Your task to perform on an android device: Clear the shopping cart on ebay. Add macbook air to the cart on ebay Image 0: 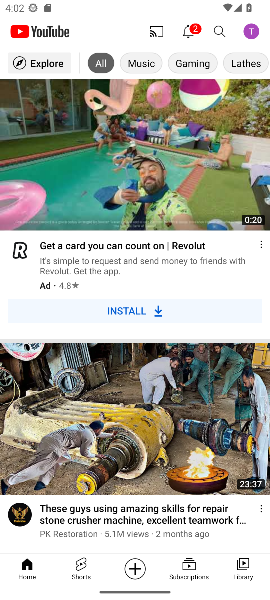
Step 0: press home button
Your task to perform on an android device: Clear the shopping cart on ebay. Add macbook air to the cart on ebay Image 1: 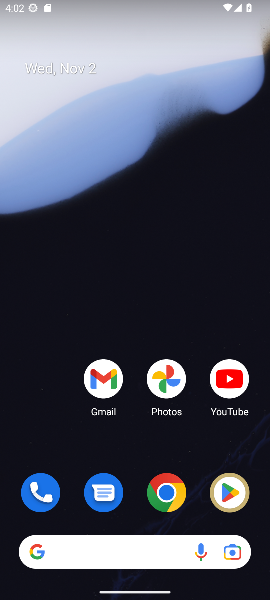
Step 1: click (167, 495)
Your task to perform on an android device: Clear the shopping cart on ebay. Add macbook air to the cart on ebay Image 2: 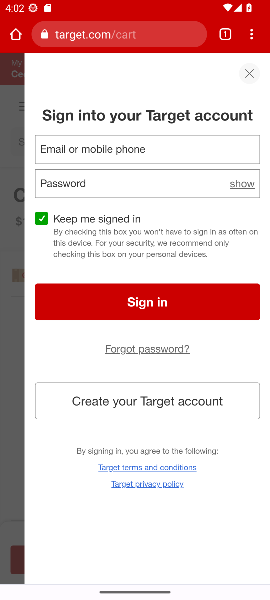
Step 2: click (155, 22)
Your task to perform on an android device: Clear the shopping cart on ebay. Add macbook air to the cart on ebay Image 3: 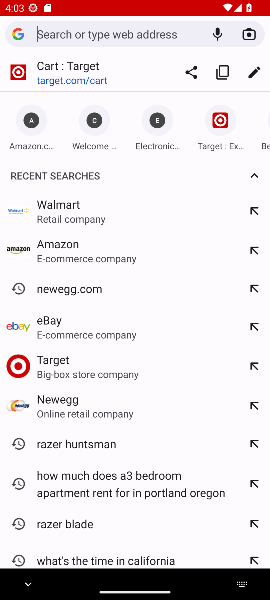
Step 3: type "ebay"
Your task to perform on an android device: Clear the shopping cart on ebay. Add macbook air to the cart on ebay Image 4: 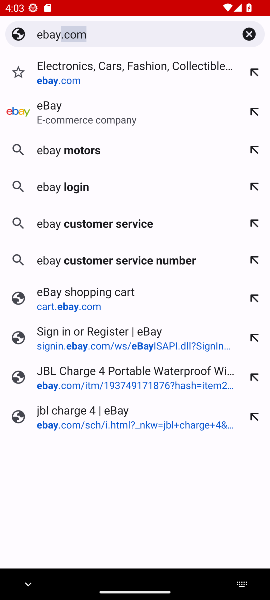
Step 4: click (59, 105)
Your task to perform on an android device: Clear the shopping cart on ebay. Add macbook air to the cart on ebay Image 5: 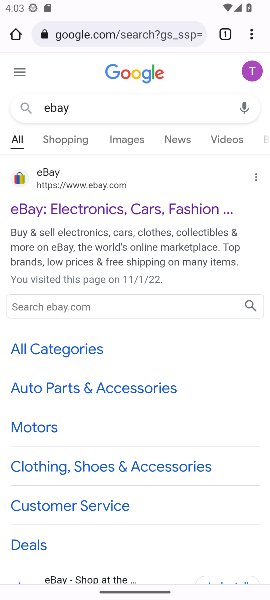
Step 5: click (70, 205)
Your task to perform on an android device: Clear the shopping cart on ebay. Add macbook air to the cart on ebay Image 6: 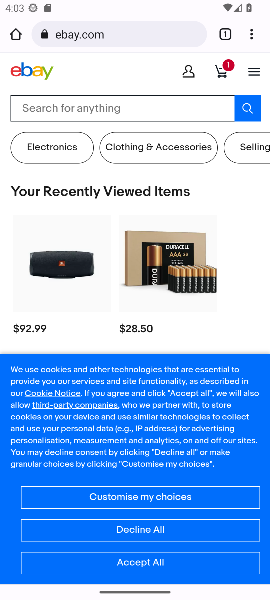
Step 6: click (225, 68)
Your task to perform on an android device: Clear the shopping cart on ebay. Add macbook air to the cart on ebay Image 7: 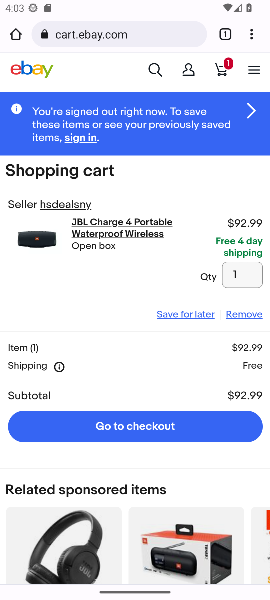
Step 7: click (242, 313)
Your task to perform on an android device: Clear the shopping cart on ebay. Add macbook air to the cart on ebay Image 8: 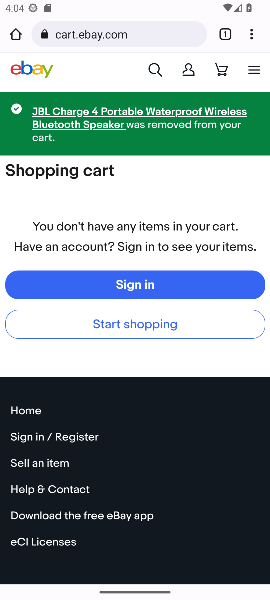
Step 8: click (129, 320)
Your task to perform on an android device: Clear the shopping cart on ebay. Add macbook air to the cart on ebay Image 9: 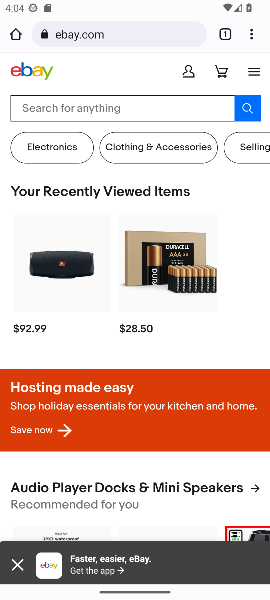
Step 9: click (64, 107)
Your task to perform on an android device: Clear the shopping cart on ebay. Add macbook air to the cart on ebay Image 10: 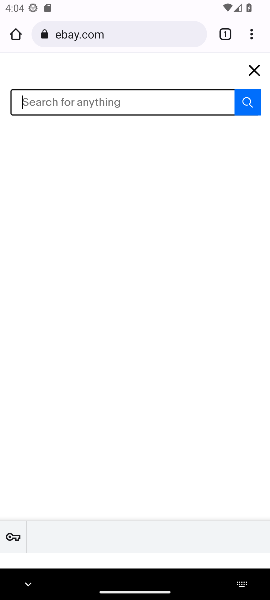
Step 10: type "macbook air"
Your task to perform on an android device: Clear the shopping cart on ebay. Add macbook air to the cart on ebay Image 11: 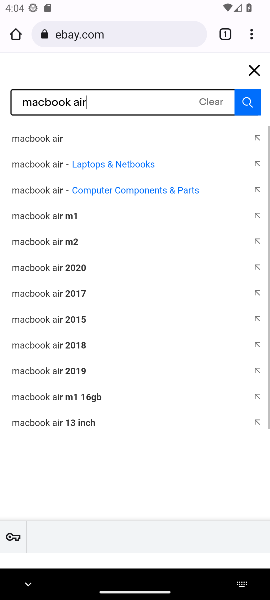
Step 11: click (42, 134)
Your task to perform on an android device: Clear the shopping cart on ebay. Add macbook air to the cart on ebay Image 12: 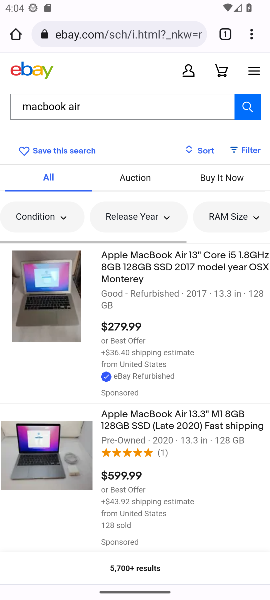
Step 12: click (122, 269)
Your task to perform on an android device: Clear the shopping cart on ebay. Add macbook air to the cart on ebay Image 13: 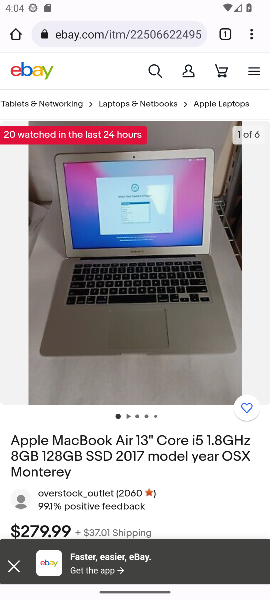
Step 13: drag from (222, 476) to (180, 208)
Your task to perform on an android device: Clear the shopping cart on ebay. Add macbook air to the cart on ebay Image 14: 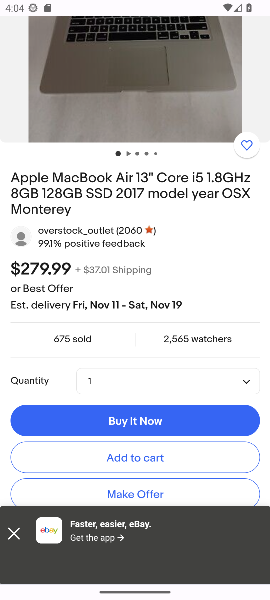
Step 14: click (134, 455)
Your task to perform on an android device: Clear the shopping cart on ebay. Add macbook air to the cart on ebay Image 15: 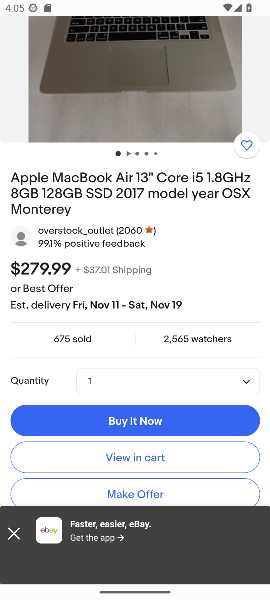
Step 15: task complete